Your task to perform on an android device: see sites visited before in the chrome app Image 0: 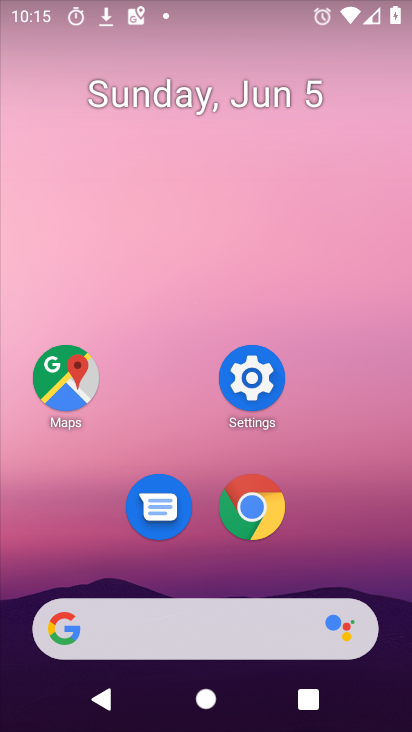
Step 0: drag from (251, 652) to (146, 48)
Your task to perform on an android device: see sites visited before in the chrome app Image 1: 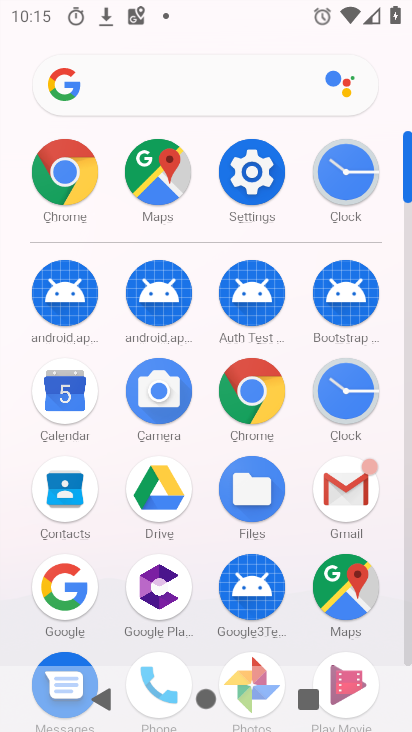
Step 1: click (66, 210)
Your task to perform on an android device: see sites visited before in the chrome app Image 2: 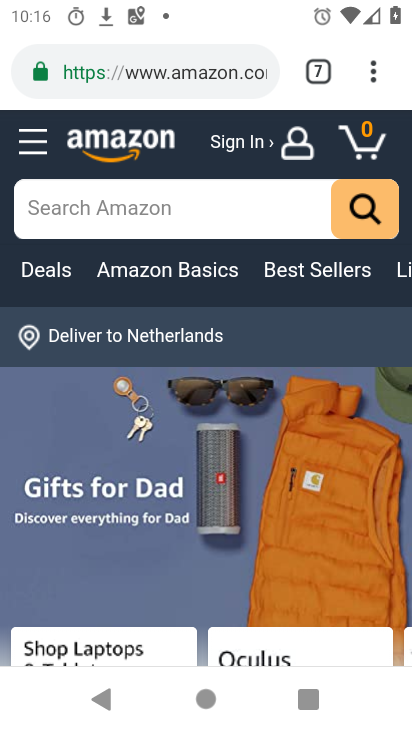
Step 2: click (370, 87)
Your task to perform on an android device: see sites visited before in the chrome app Image 3: 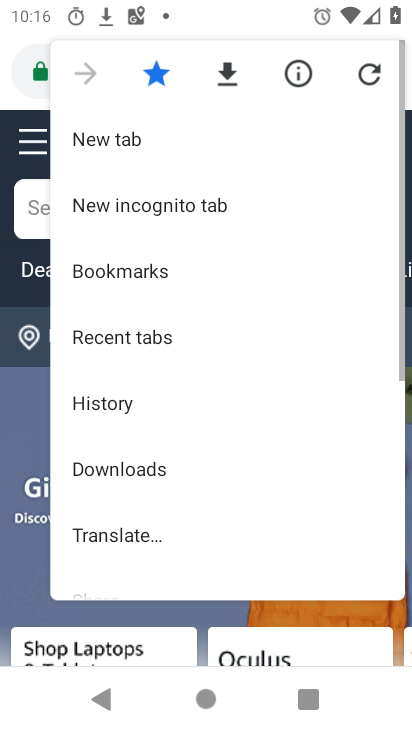
Step 3: drag from (183, 470) to (149, 145)
Your task to perform on an android device: see sites visited before in the chrome app Image 4: 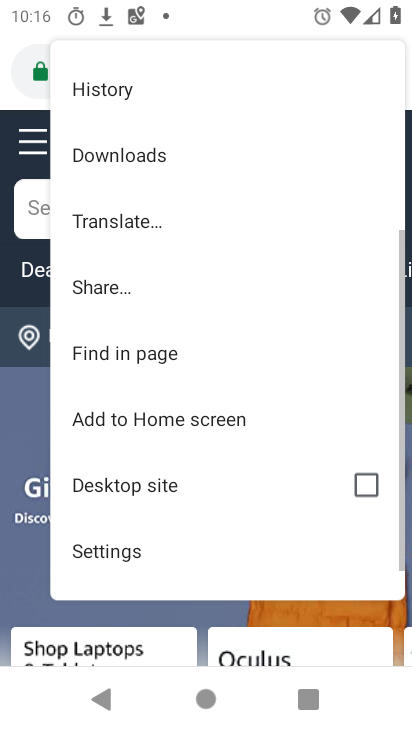
Step 4: click (122, 557)
Your task to perform on an android device: see sites visited before in the chrome app Image 5: 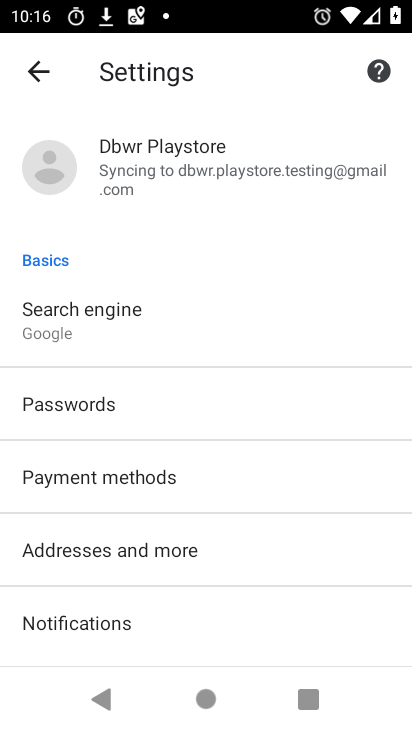
Step 5: drag from (164, 556) to (175, 384)
Your task to perform on an android device: see sites visited before in the chrome app Image 6: 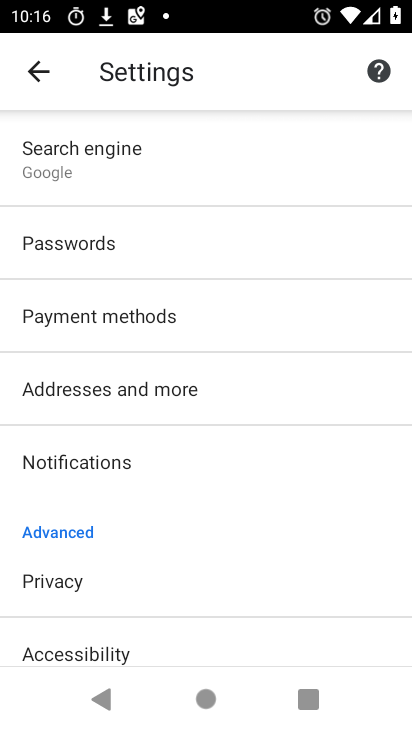
Step 6: drag from (102, 641) to (94, 394)
Your task to perform on an android device: see sites visited before in the chrome app Image 7: 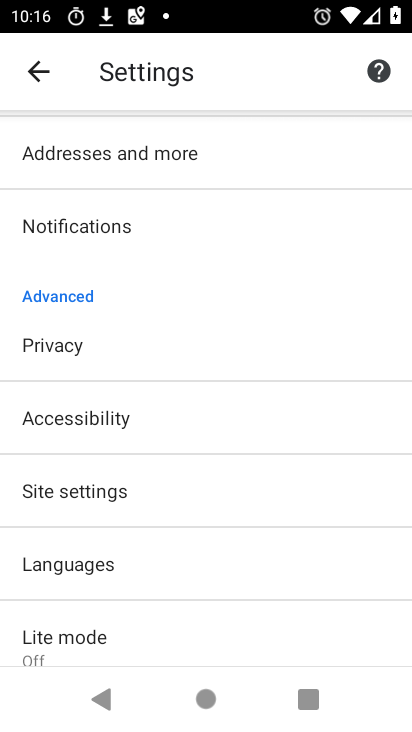
Step 7: click (123, 489)
Your task to perform on an android device: see sites visited before in the chrome app Image 8: 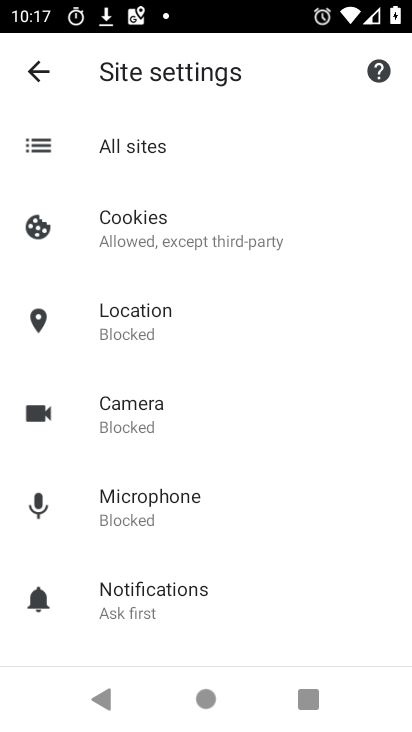
Step 8: click (131, 172)
Your task to perform on an android device: see sites visited before in the chrome app Image 9: 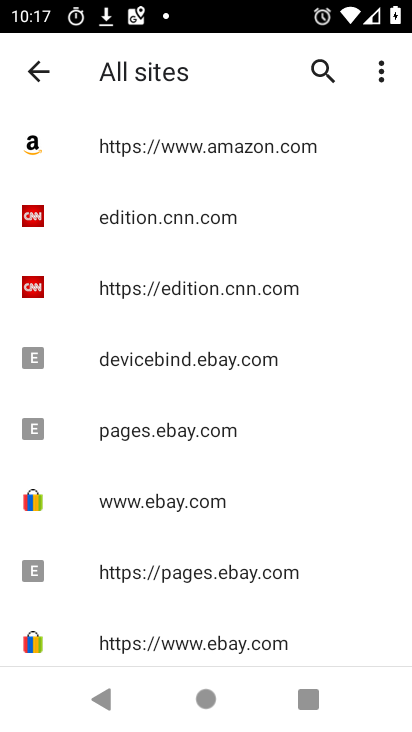
Step 9: task complete